Your task to perform on an android device: turn off priority inbox in the gmail app Image 0: 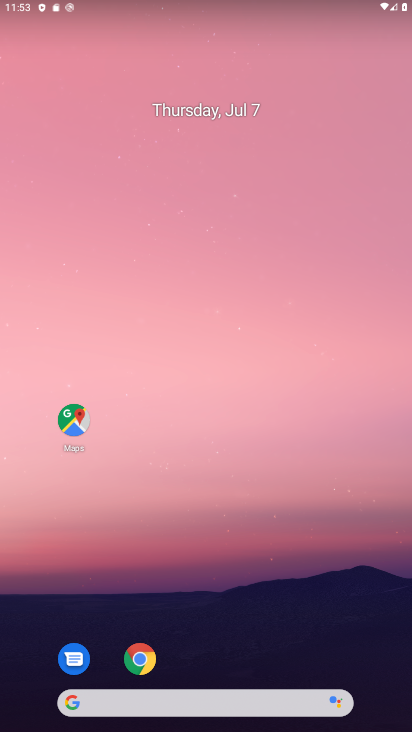
Step 0: drag from (239, 580) to (195, 83)
Your task to perform on an android device: turn off priority inbox in the gmail app Image 1: 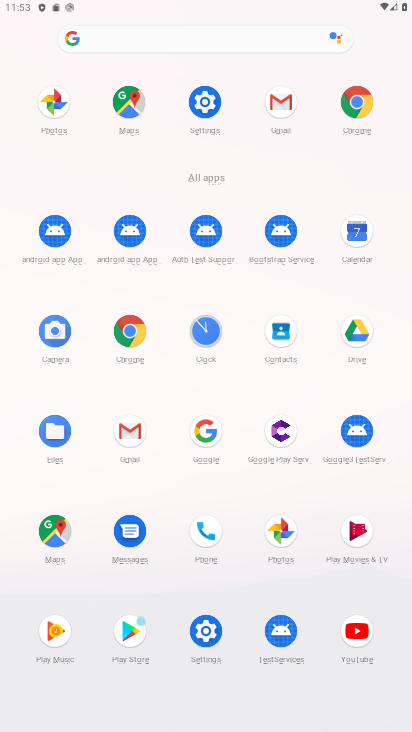
Step 1: click (281, 106)
Your task to perform on an android device: turn off priority inbox in the gmail app Image 2: 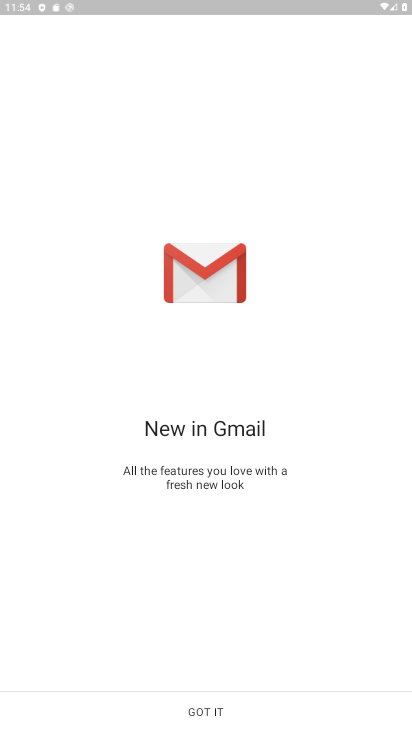
Step 2: click (196, 705)
Your task to perform on an android device: turn off priority inbox in the gmail app Image 3: 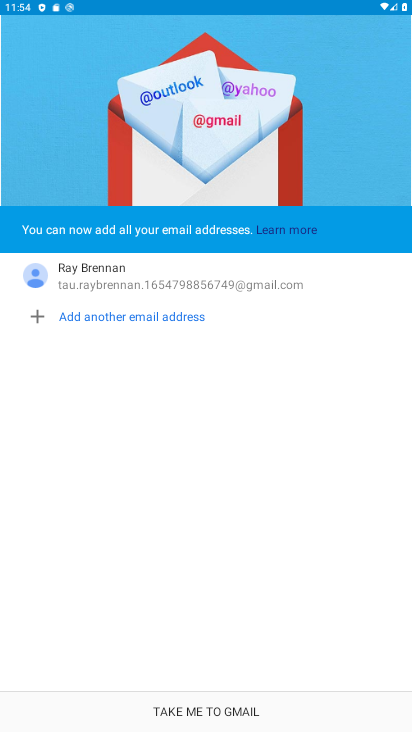
Step 3: click (225, 704)
Your task to perform on an android device: turn off priority inbox in the gmail app Image 4: 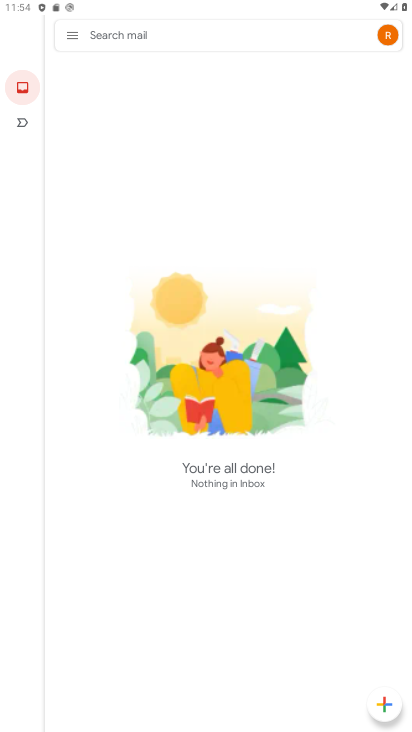
Step 4: click (68, 29)
Your task to perform on an android device: turn off priority inbox in the gmail app Image 5: 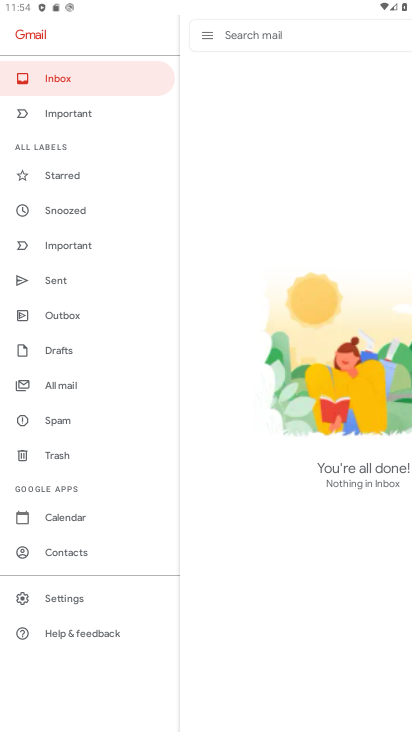
Step 5: click (67, 599)
Your task to perform on an android device: turn off priority inbox in the gmail app Image 6: 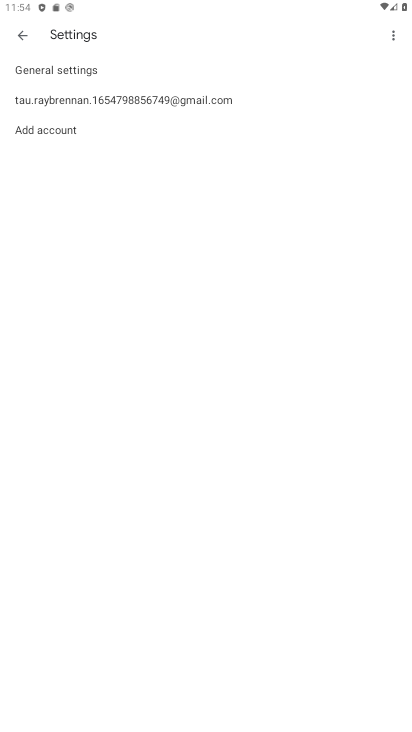
Step 6: click (56, 71)
Your task to perform on an android device: turn off priority inbox in the gmail app Image 7: 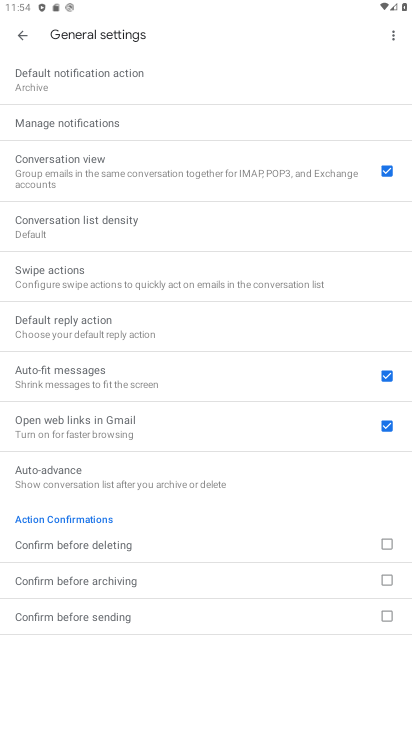
Step 7: click (18, 39)
Your task to perform on an android device: turn off priority inbox in the gmail app Image 8: 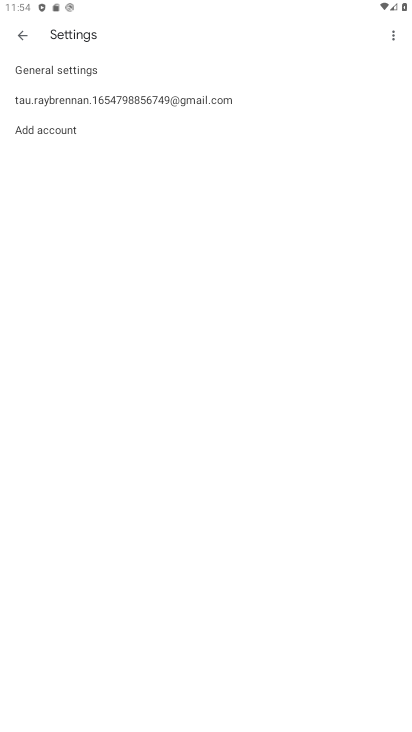
Step 8: click (49, 95)
Your task to perform on an android device: turn off priority inbox in the gmail app Image 9: 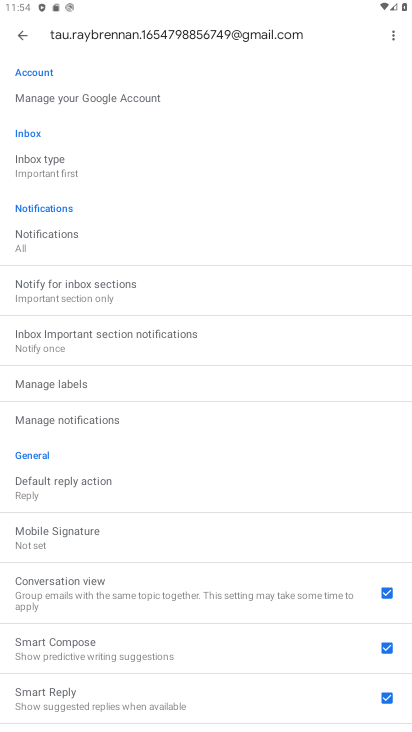
Step 9: click (51, 160)
Your task to perform on an android device: turn off priority inbox in the gmail app Image 10: 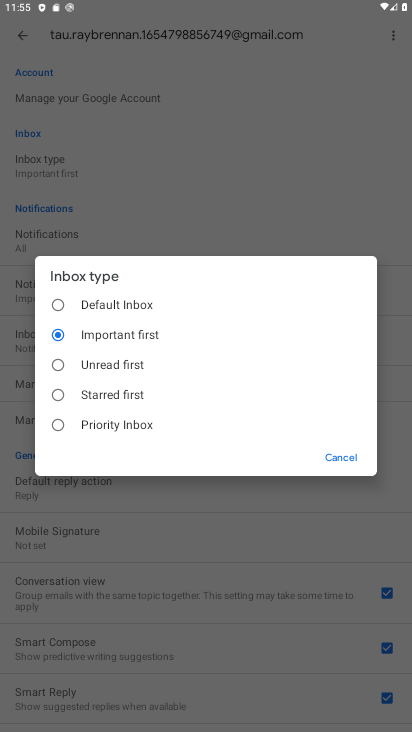
Step 10: task complete